Your task to perform on an android device: Open privacy settings Image 0: 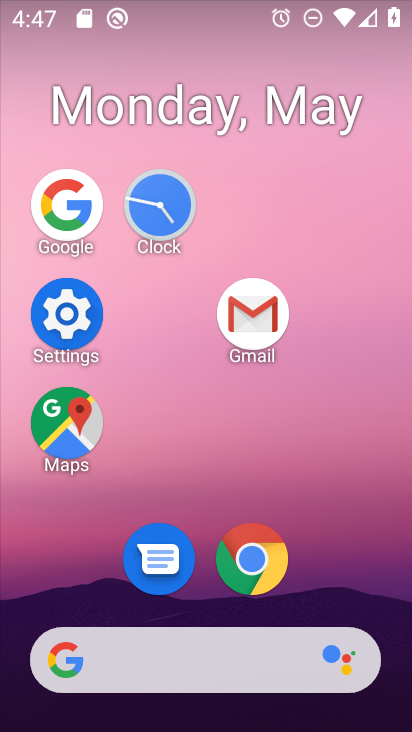
Step 0: click (42, 321)
Your task to perform on an android device: Open privacy settings Image 1: 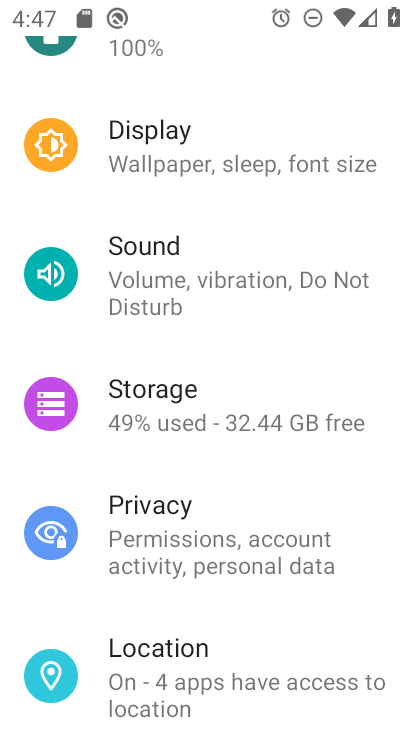
Step 1: click (241, 519)
Your task to perform on an android device: Open privacy settings Image 2: 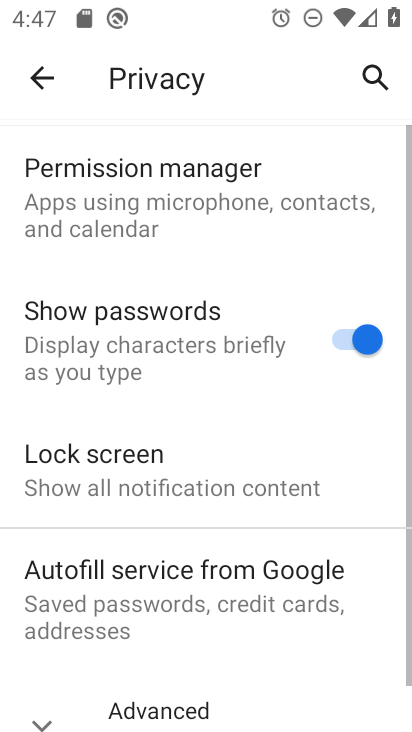
Step 2: task complete